Your task to perform on an android device: Search for vegetarian restaurants on Maps Image 0: 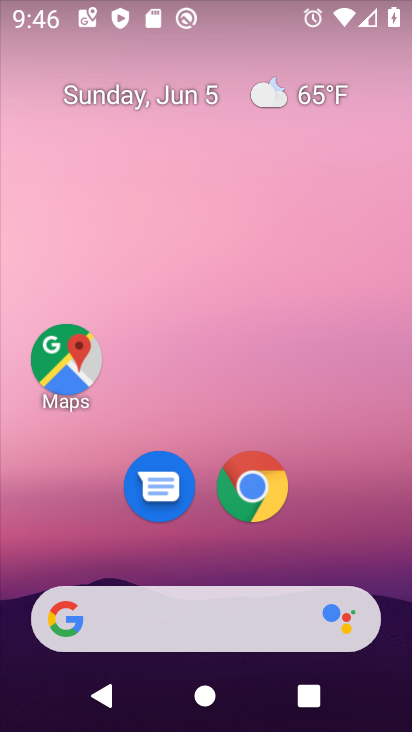
Step 0: drag from (389, 543) to (356, 178)
Your task to perform on an android device: Search for vegetarian restaurants on Maps Image 1: 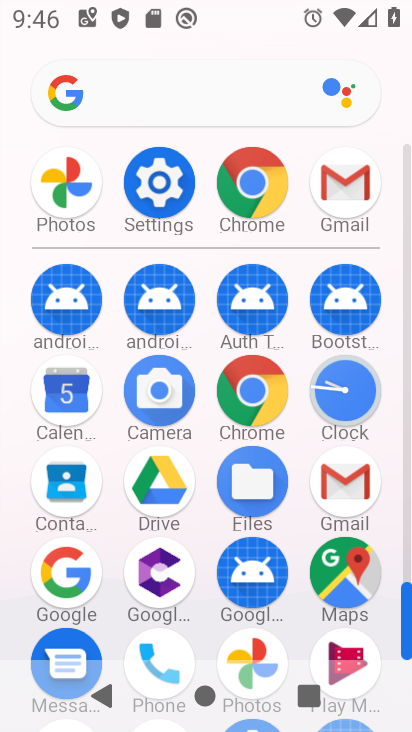
Step 1: click (350, 586)
Your task to perform on an android device: Search for vegetarian restaurants on Maps Image 2: 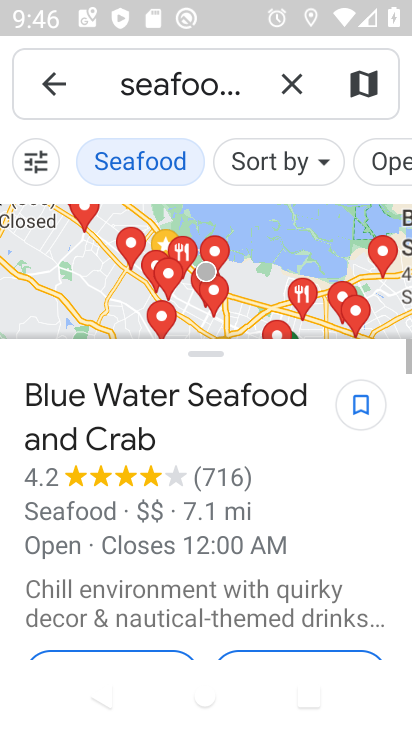
Step 2: click (283, 74)
Your task to perform on an android device: Search for vegetarian restaurants on Maps Image 3: 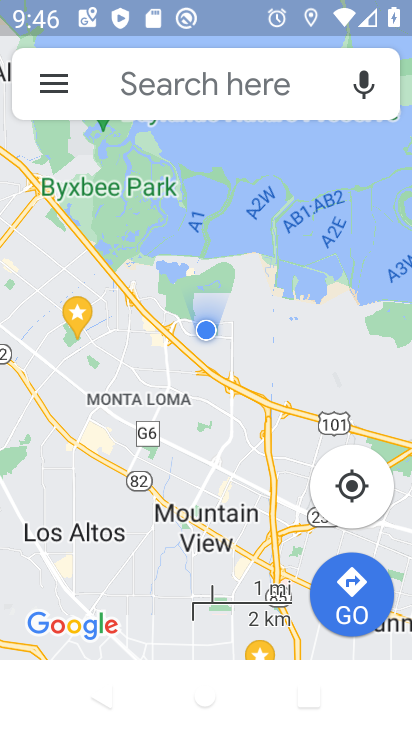
Step 3: click (239, 89)
Your task to perform on an android device: Search for vegetarian restaurants on Maps Image 4: 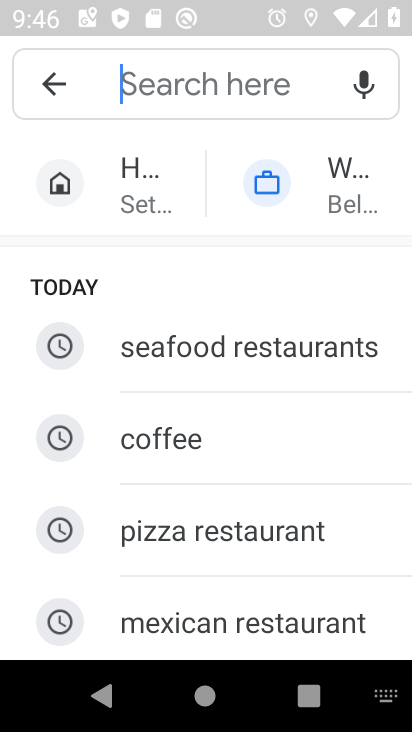
Step 4: drag from (306, 525) to (306, 225)
Your task to perform on an android device: Search for vegetarian restaurants on Maps Image 5: 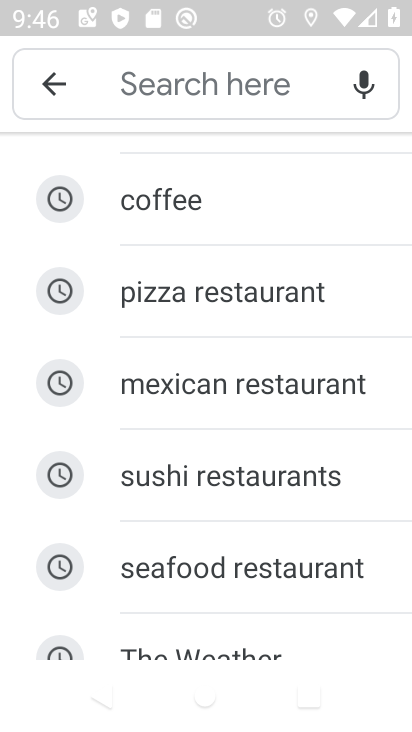
Step 5: drag from (305, 520) to (304, 210)
Your task to perform on an android device: Search for vegetarian restaurants on Maps Image 6: 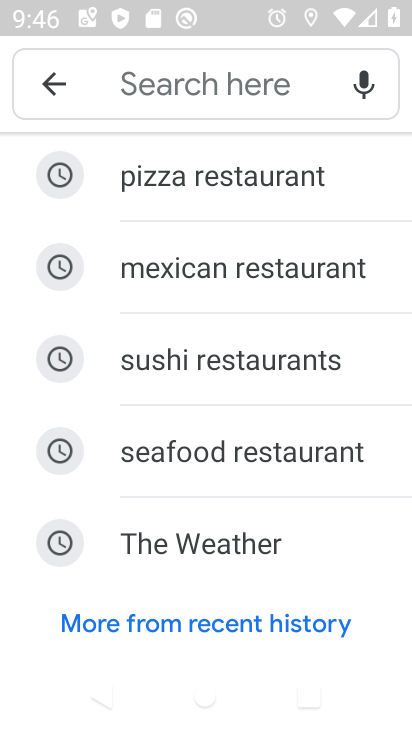
Step 6: click (242, 83)
Your task to perform on an android device: Search for vegetarian restaurants on Maps Image 7: 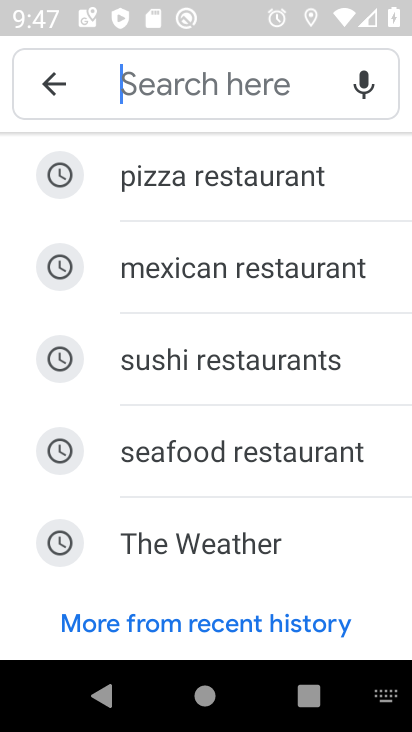
Step 7: type "vegetarian restaurants "
Your task to perform on an android device: Search for vegetarian restaurants on Maps Image 8: 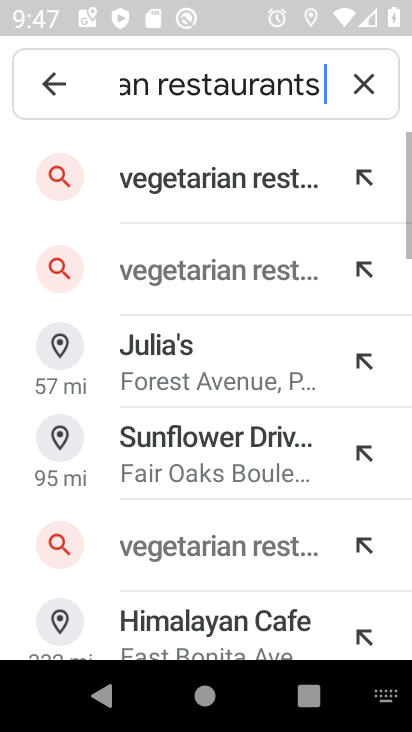
Step 8: click (201, 181)
Your task to perform on an android device: Search for vegetarian restaurants on Maps Image 9: 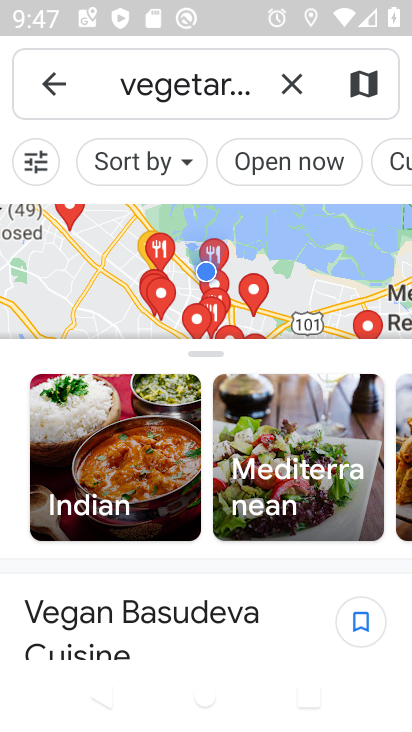
Step 9: task complete